Your task to perform on an android device: Go to Maps Image 0: 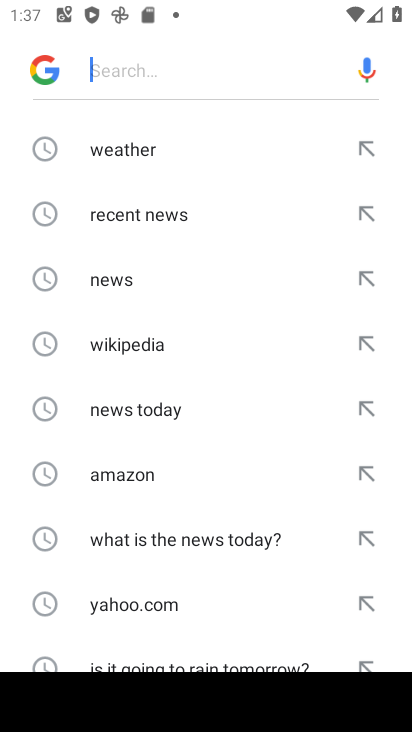
Step 0: press home button
Your task to perform on an android device: Go to Maps Image 1: 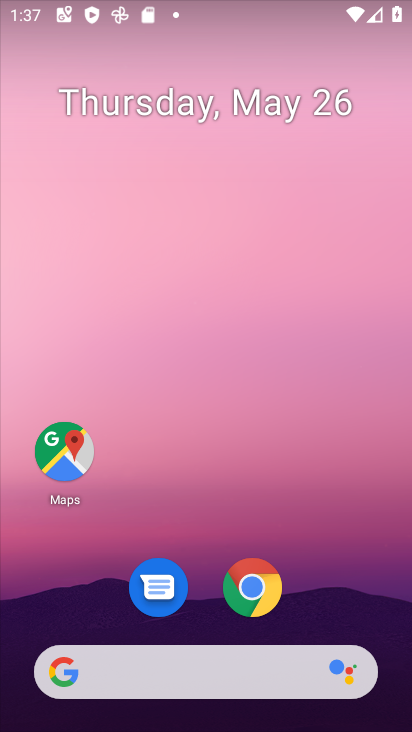
Step 1: drag from (362, 604) to (359, 82)
Your task to perform on an android device: Go to Maps Image 2: 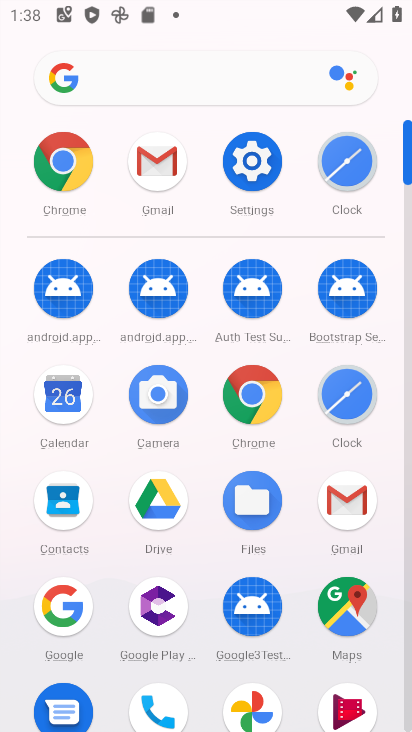
Step 2: click (344, 610)
Your task to perform on an android device: Go to Maps Image 3: 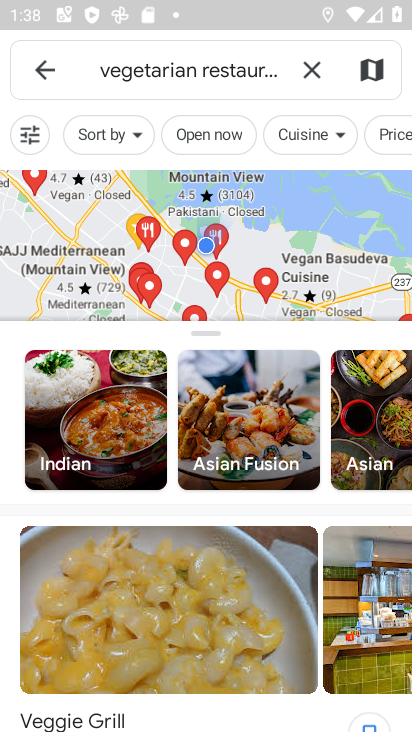
Step 3: task complete